Your task to perform on an android device: Find coffee shops on Maps Image 0: 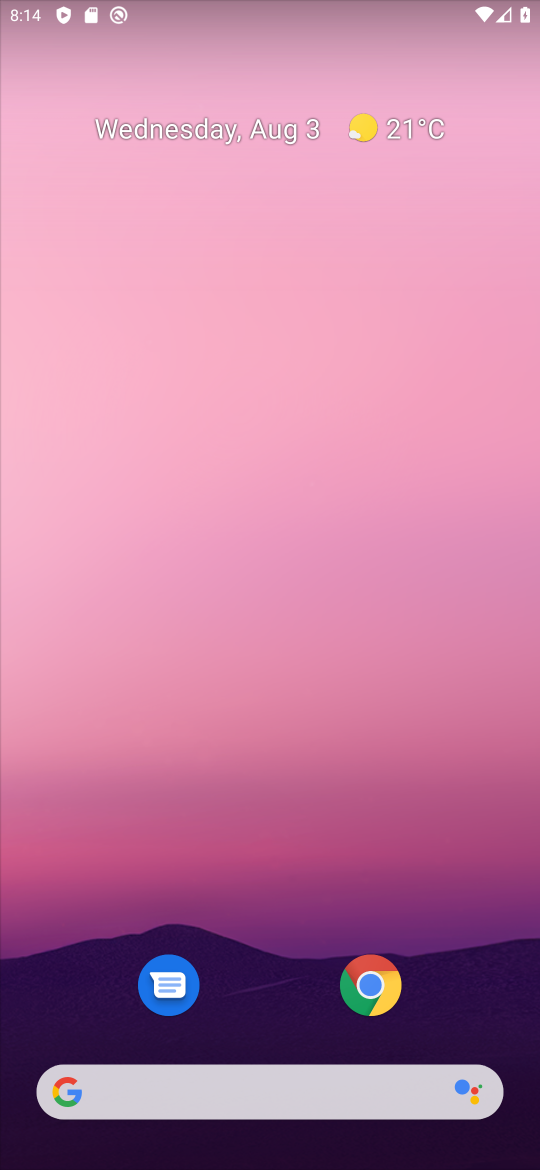
Step 0: drag from (263, 889) to (263, 362)
Your task to perform on an android device: Find coffee shops on Maps Image 1: 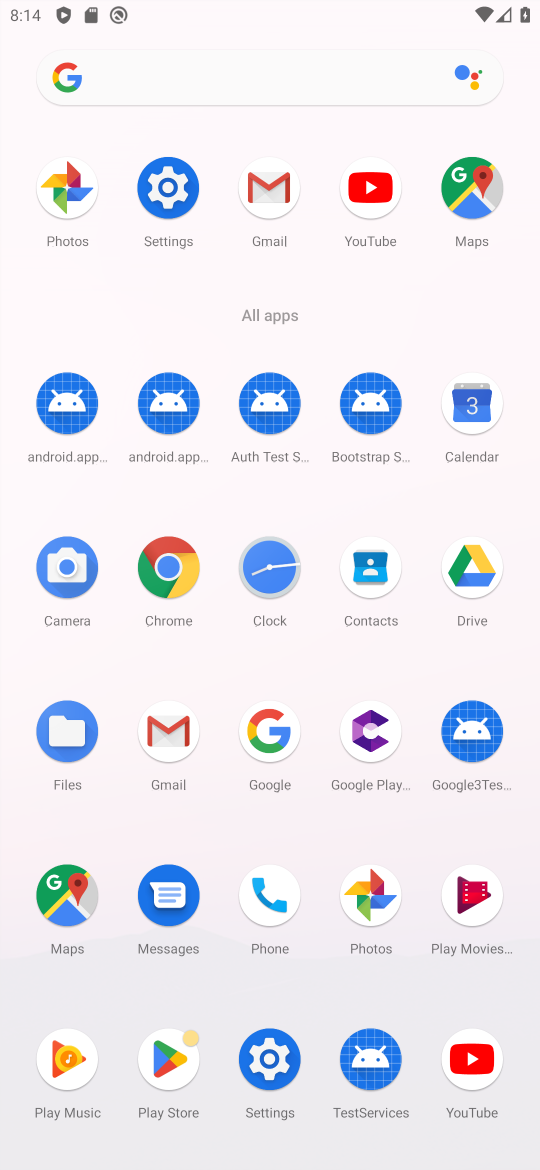
Step 1: click (459, 206)
Your task to perform on an android device: Find coffee shops on Maps Image 2: 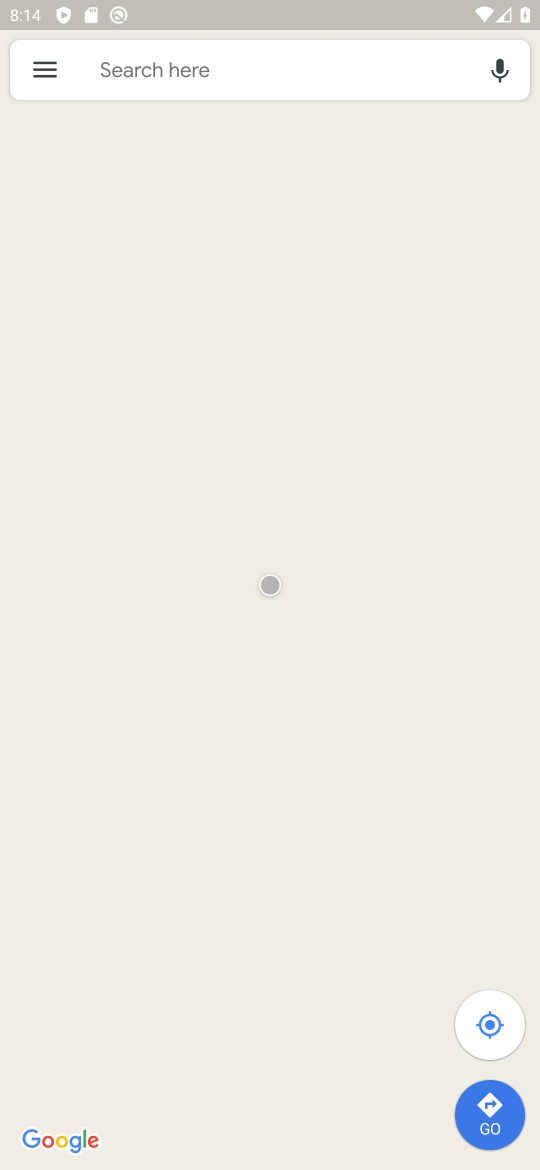
Step 2: click (239, 80)
Your task to perform on an android device: Find coffee shops on Maps Image 3: 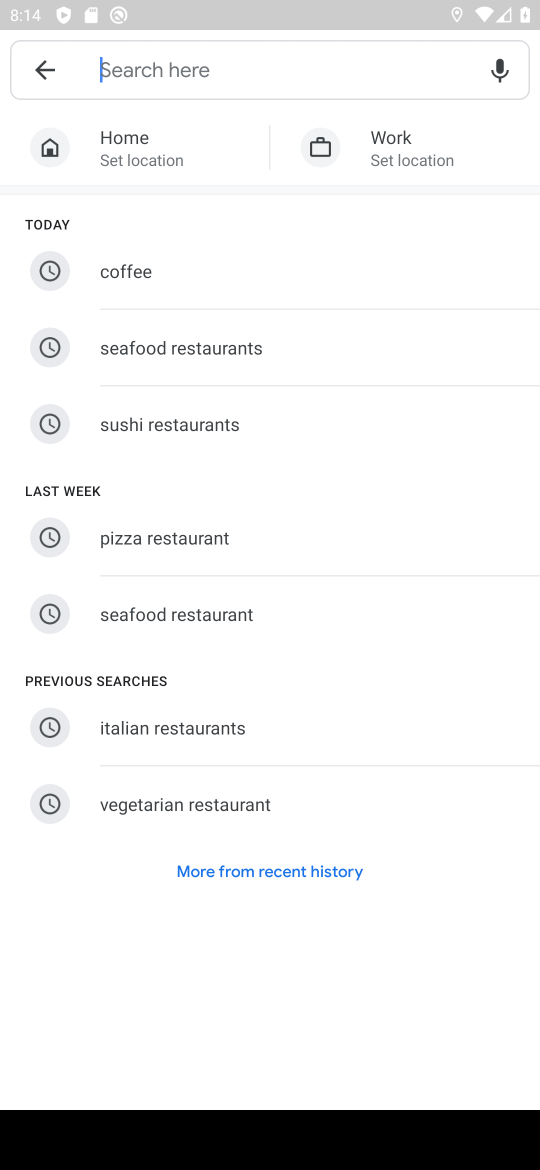
Step 3: type "coffee shops"
Your task to perform on an android device: Find coffee shops on Maps Image 4: 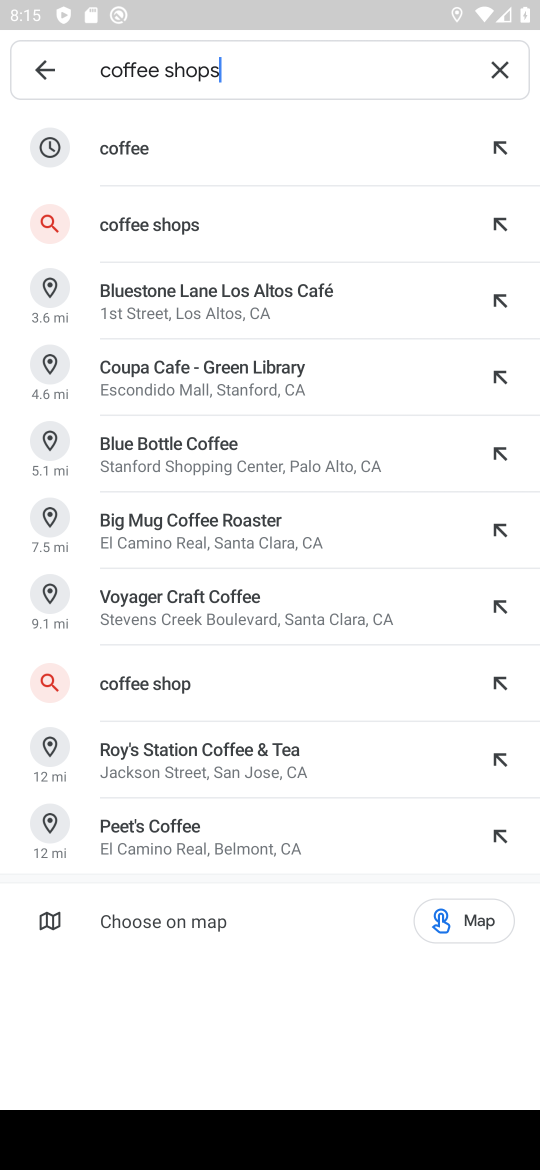
Step 4: click (158, 225)
Your task to perform on an android device: Find coffee shops on Maps Image 5: 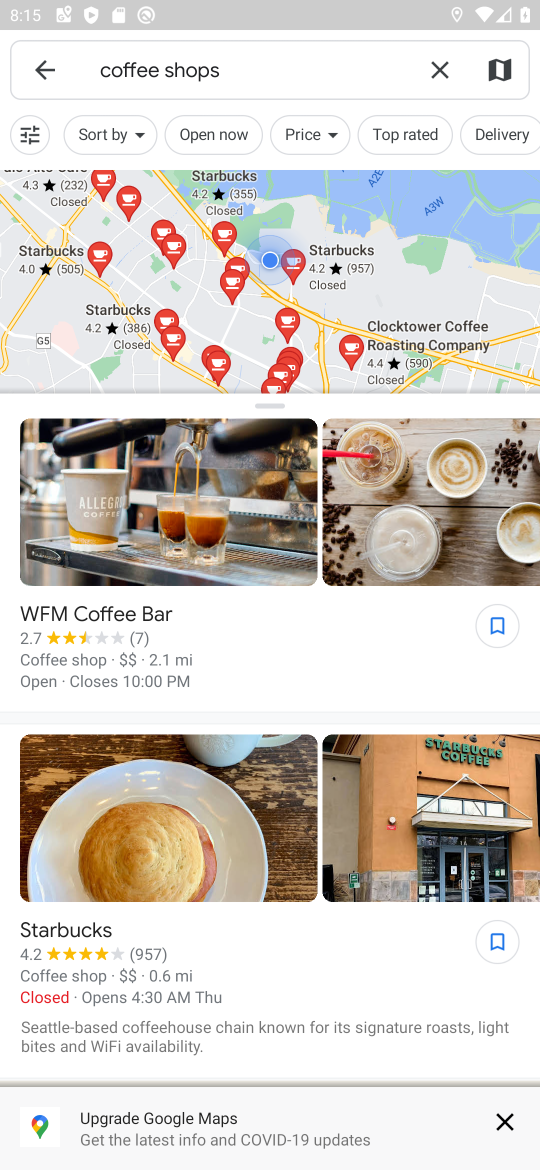
Step 5: task complete